Your task to perform on an android device: change the clock style Image 0: 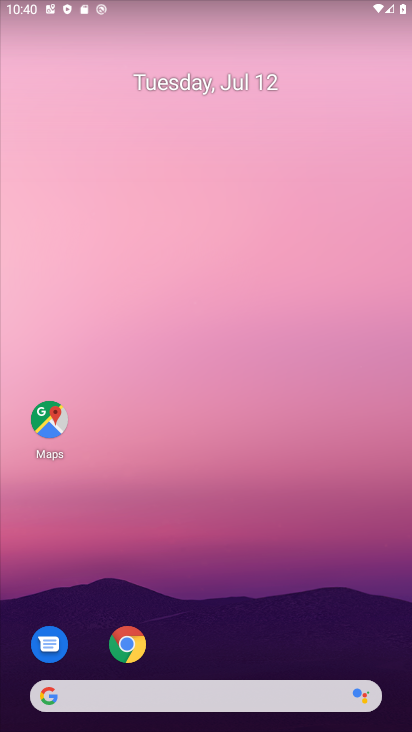
Step 0: drag from (234, 648) to (242, 208)
Your task to perform on an android device: change the clock style Image 1: 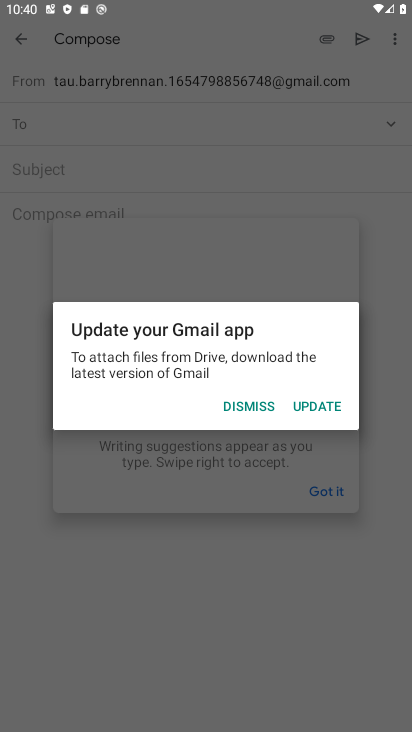
Step 1: press home button
Your task to perform on an android device: change the clock style Image 2: 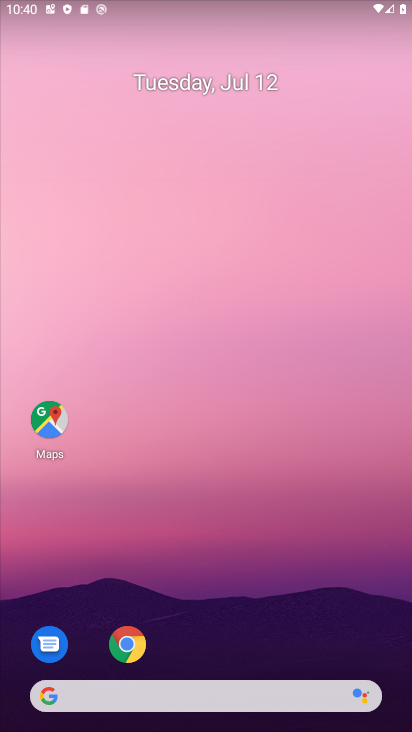
Step 2: drag from (222, 656) to (211, 102)
Your task to perform on an android device: change the clock style Image 3: 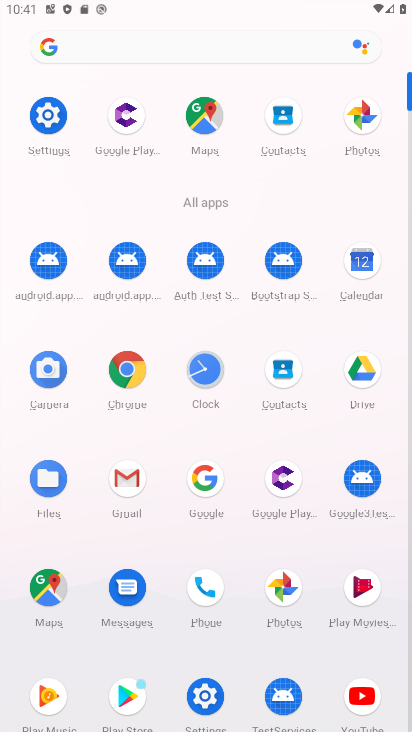
Step 3: click (202, 364)
Your task to perform on an android device: change the clock style Image 4: 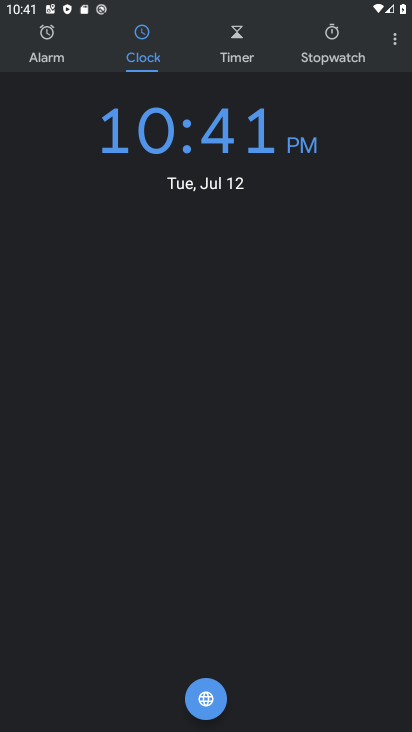
Step 4: click (392, 38)
Your task to perform on an android device: change the clock style Image 5: 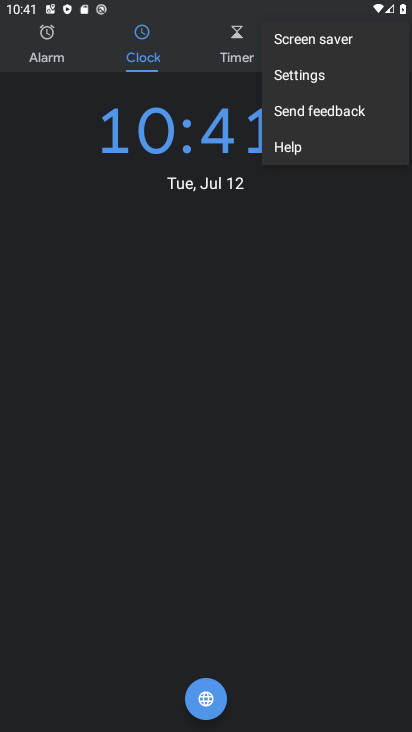
Step 5: click (330, 77)
Your task to perform on an android device: change the clock style Image 6: 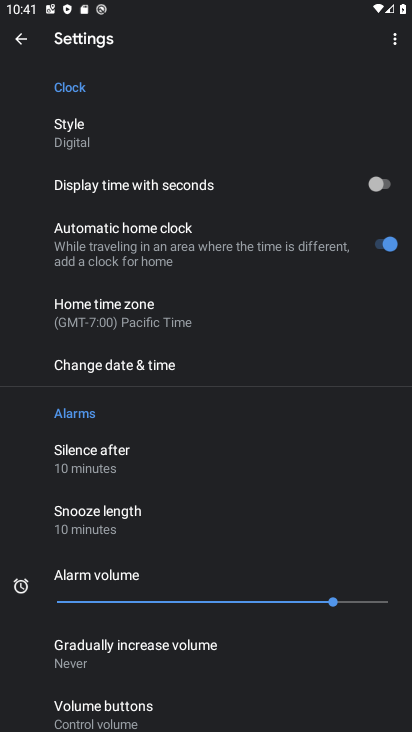
Step 6: click (101, 132)
Your task to perform on an android device: change the clock style Image 7: 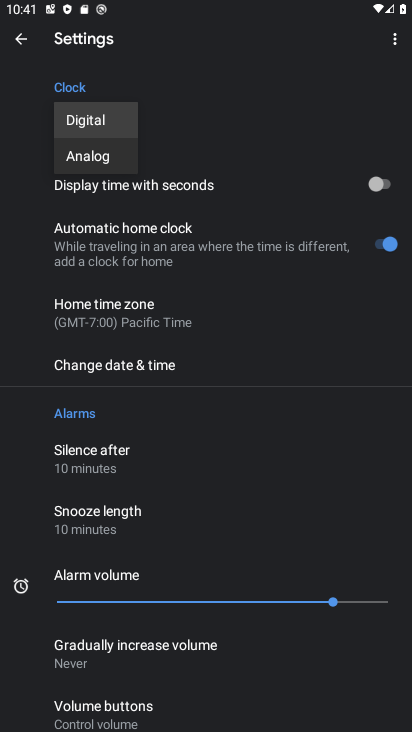
Step 7: click (102, 164)
Your task to perform on an android device: change the clock style Image 8: 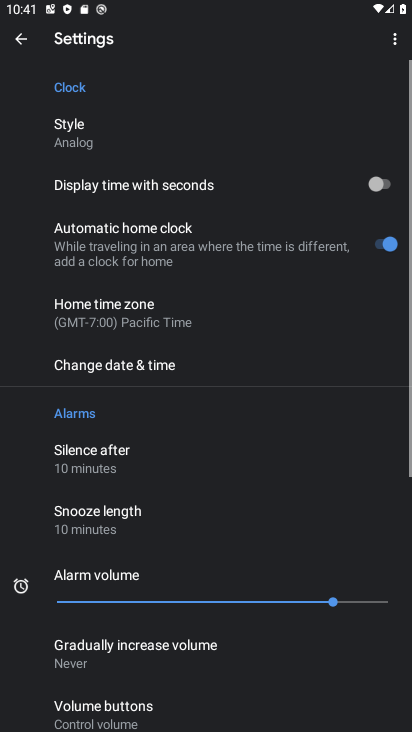
Step 8: task complete